Your task to perform on an android device: Open the calendar app, open the side menu, and click the "Day" option Image 0: 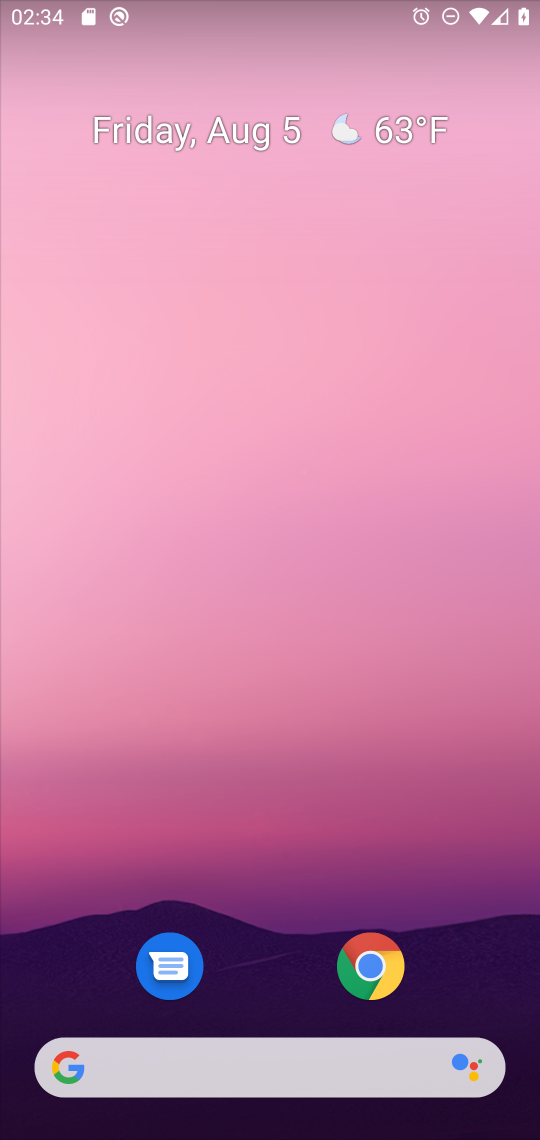
Step 0: drag from (310, 958) to (335, 99)
Your task to perform on an android device: Open the calendar app, open the side menu, and click the "Day" option Image 1: 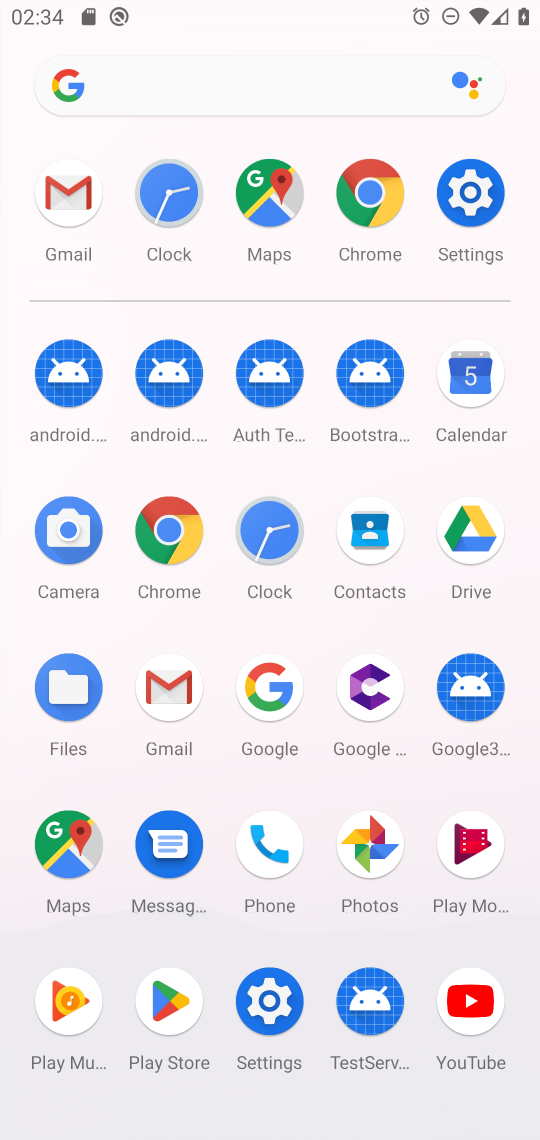
Step 1: click (465, 371)
Your task to perform on an android device: Open the calendar app, open the side menu, and click the "Day" option Image 2: 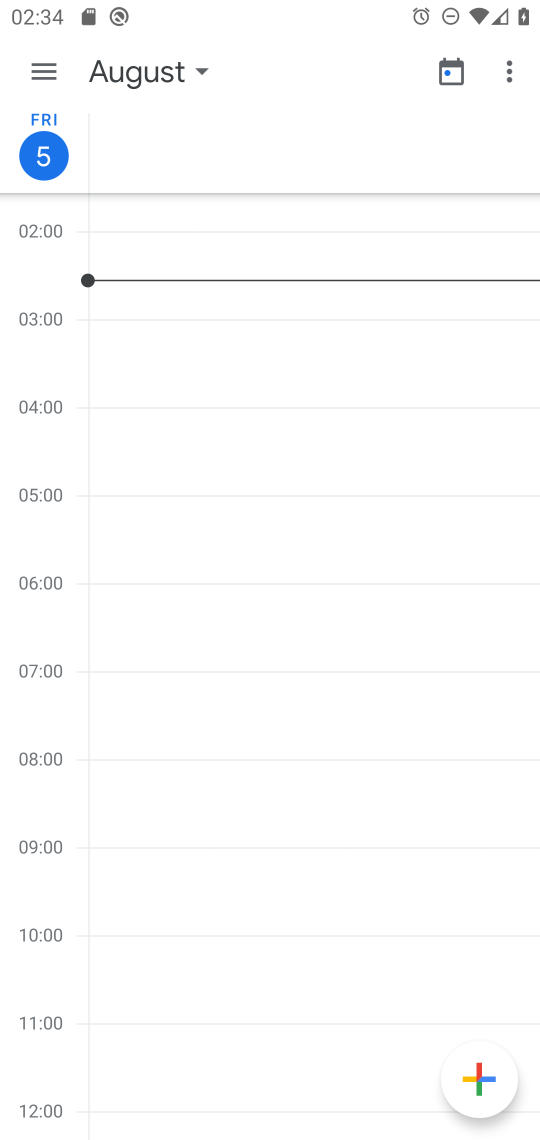
Step 2: click (41, 73)
Your task to perform on an android device: Open the calendar app, open the side menu, and click the "Day" option Image 3: 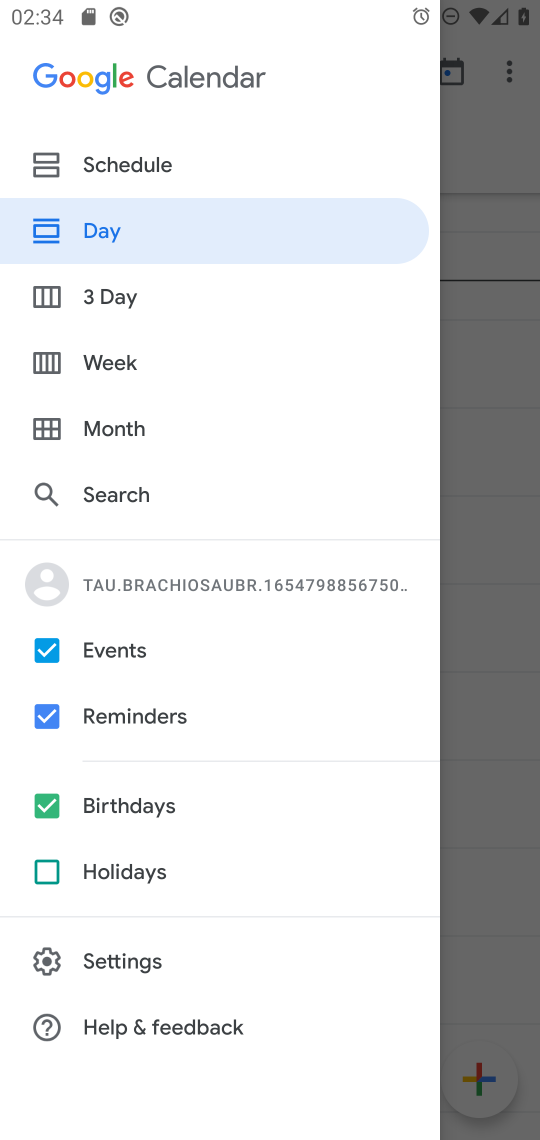
Step 3: click (54, 219)
Your task to perform on an android device: Open the calendar app, open the side menu, and click the "Day" option Image 4: 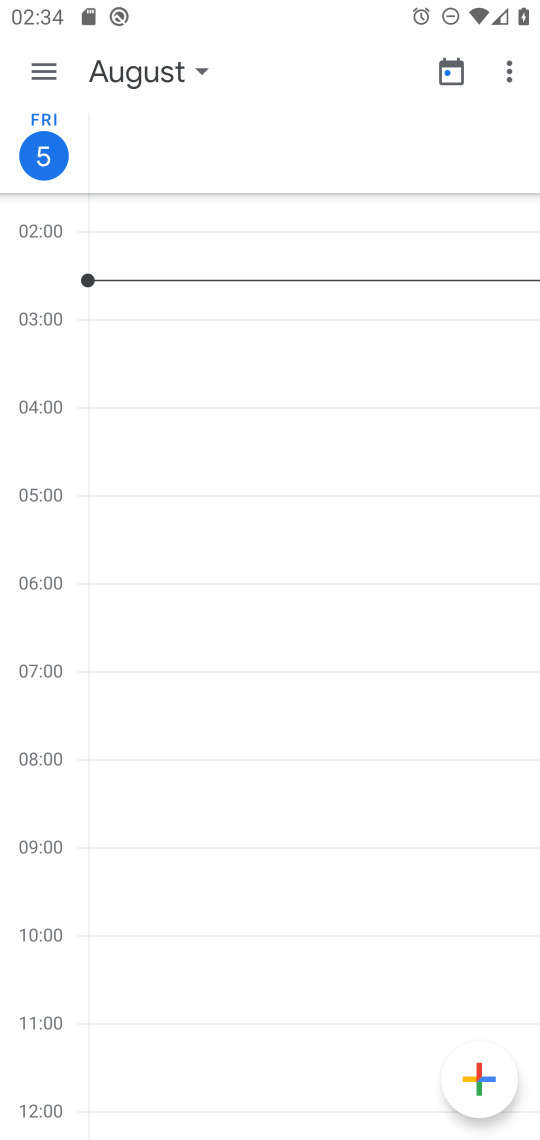
Step 4: task complete